Your task to perform on an android device: Open maps Image 0: 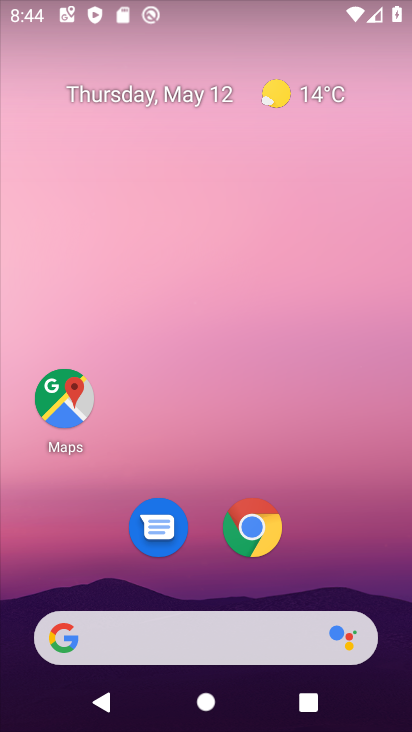
Step 0: click (51, 417)
Your task to perform on an android device: Open maps Image 1: 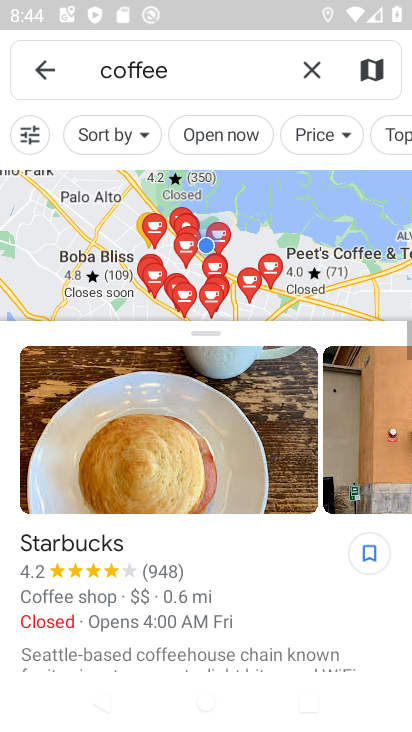
Step 1: task complete